Your task to perform on an android device: Go to notification settings Image 0: 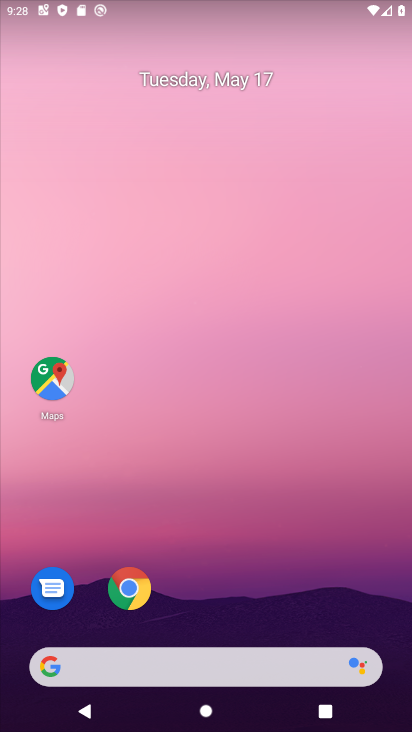
Step 0: drag from (250, 648) to (195, 1)
Your task to perform on an android device: Go to notification settings Image 1: 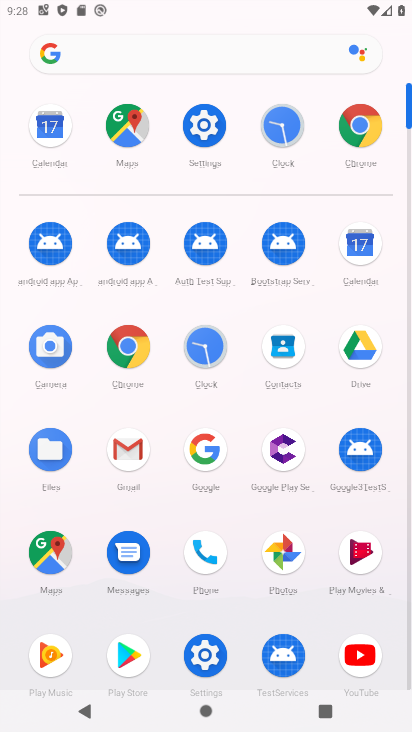
Step 1: click (210, 127)
Your task to perform on an android device: Go to notification settings Image 2: 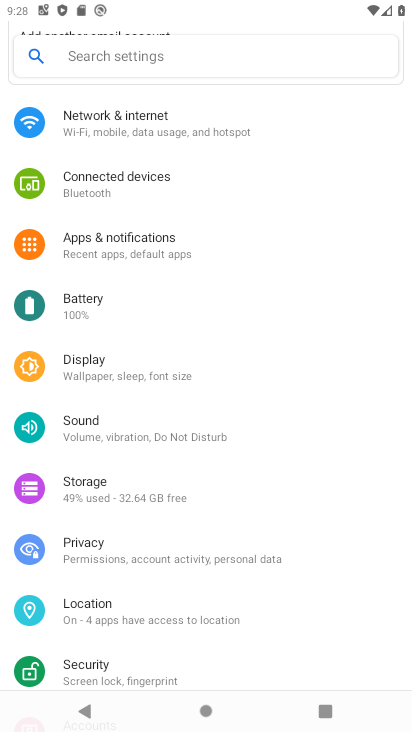
Step 2: click (91, 262)
Your task to perform on an android device: Go to notification settings Image 3: 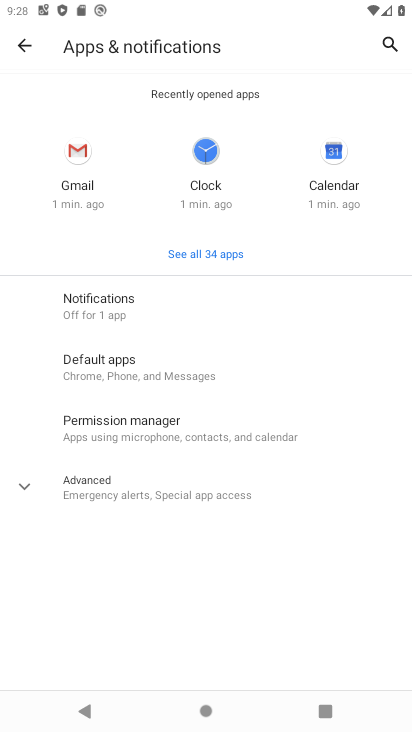
Step 3: click (93, 286)
Your task to perform on an android device: Go to notification settings Image 4: 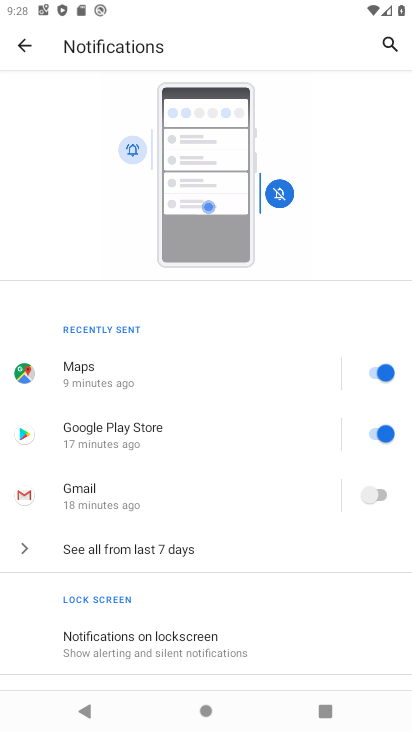
Step 4: task complete